Your task to perform on an android device: open app "Move to iOS" (install if not already installed), go to login, and select forgot password Image 0: 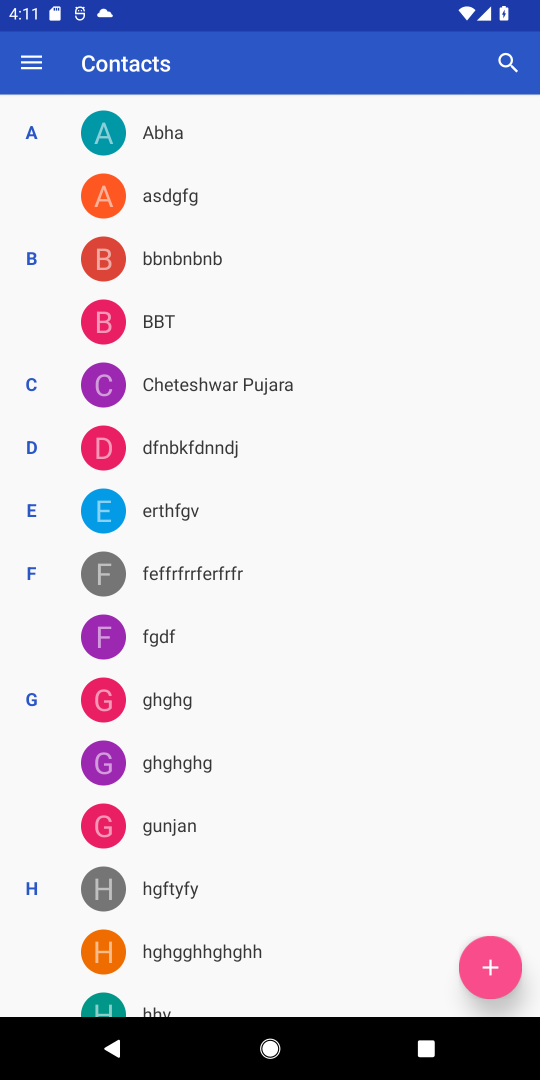
Step 0: press home button
Your task to perform on an android device: open app "Move to iOS" (install if not already installed), go to login, and select forgot password Image 1: 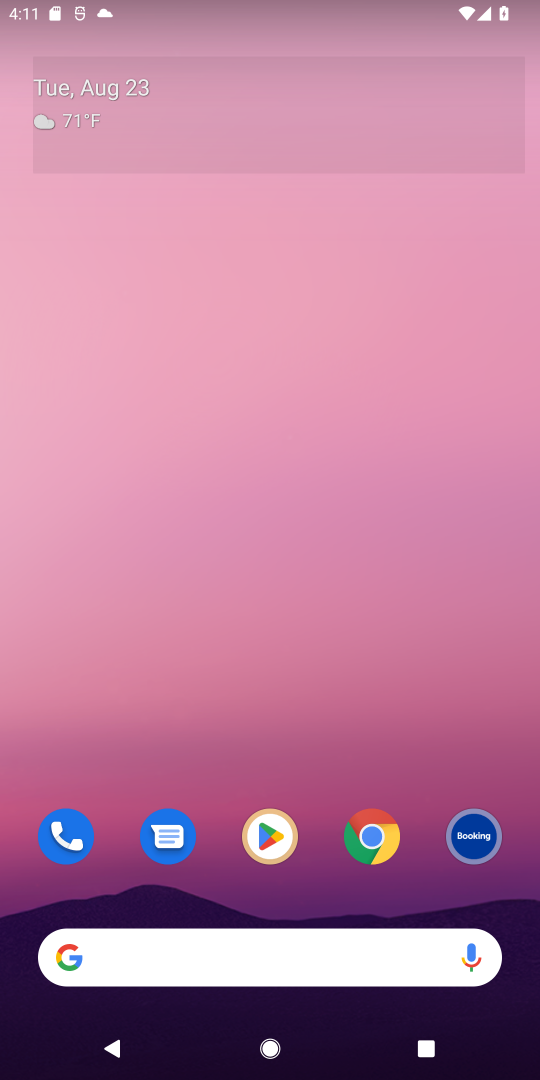
Step 1: click (274, 835)
Your task to perform on an android device: open app "Move to iOS" (install if not already installed), go to login, and select forgot password Image 2: 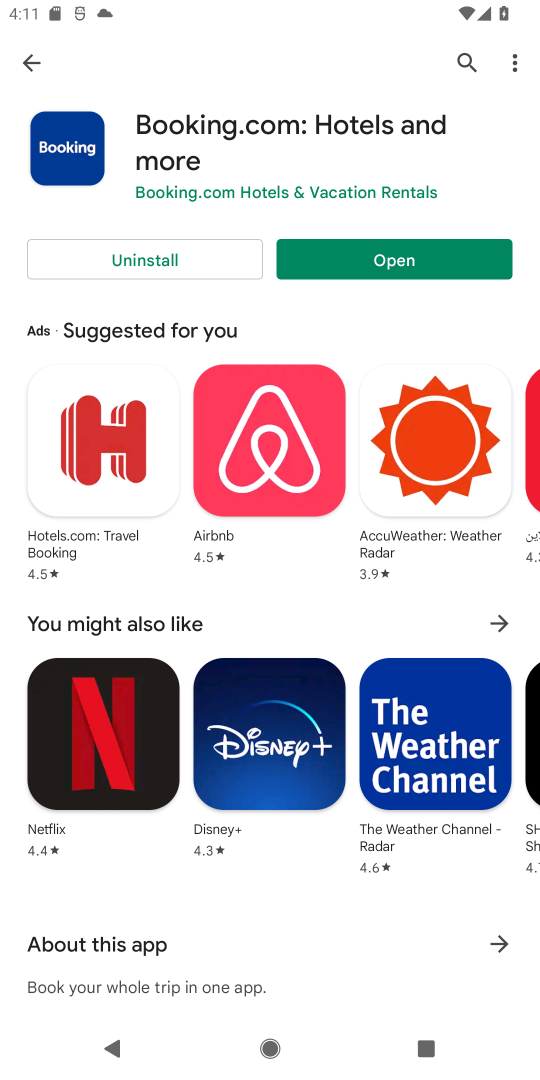
Step 2: click (466, 56)
Your task to perform on an android device: open app "Move to iOS" (install if not already installed), go to login, and select forgot password Image 3: 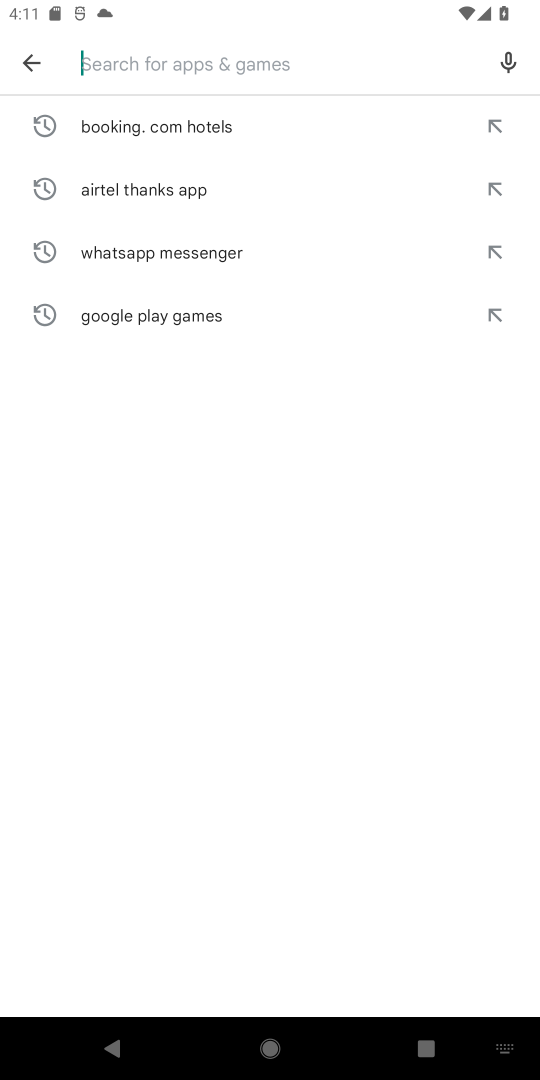
Step 3: type "Move to iOS"
Your task to perform on an android device: open app "Move to iOS" (install if not already installed), go to login, and select forgot password Image 4: 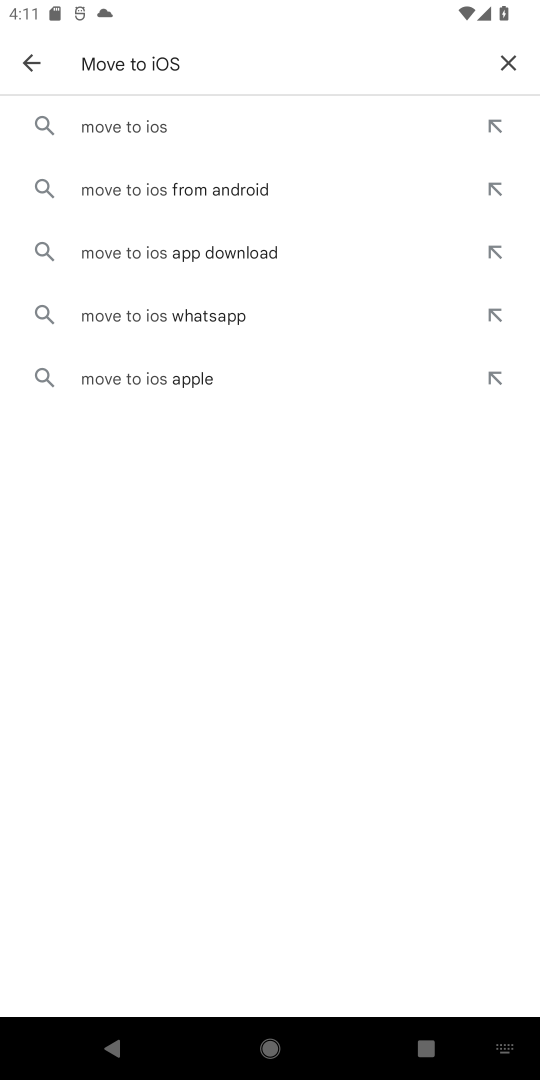
Step 4: click (146, 123)
Your task to perform on an android device: open app "Move to iOS" (install if not already installed), go to login, and select forgot password Image 5: 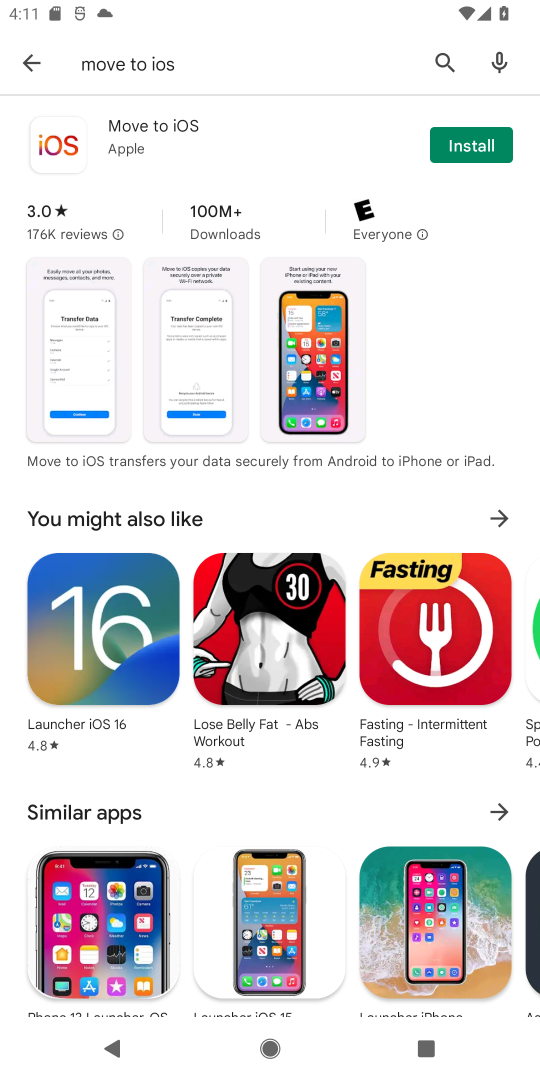
Step 5: click (472, 139)
Your task to perform on an android device: open app "Move to iOS" (install if not already installed), go to login, and select forgot password Image 6: 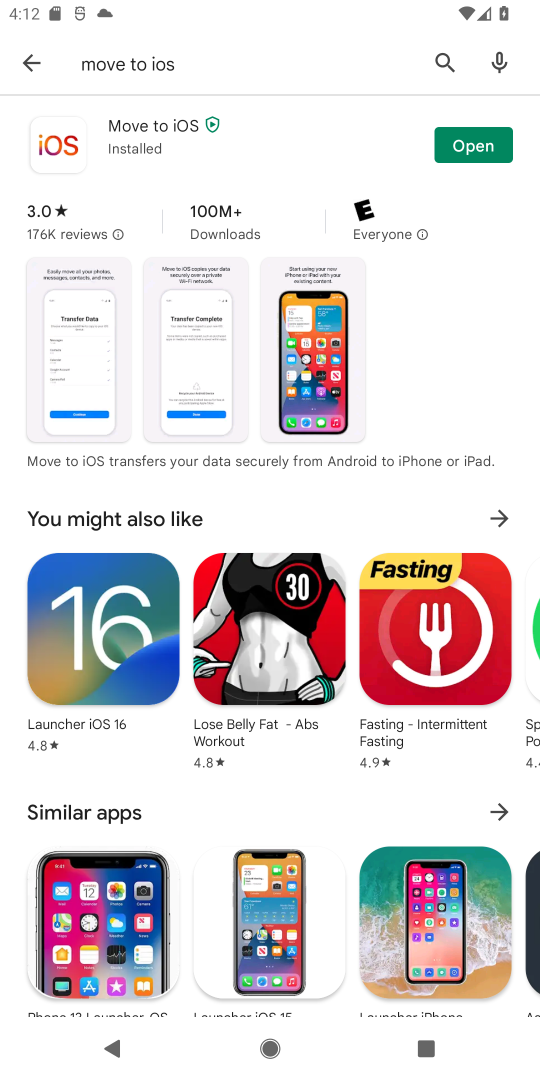
Step 6: click (477, 148)
Your task to perform on an android device: open app "Move to iOS" (install if not already installed), go to login, and select forgot password Image 7: 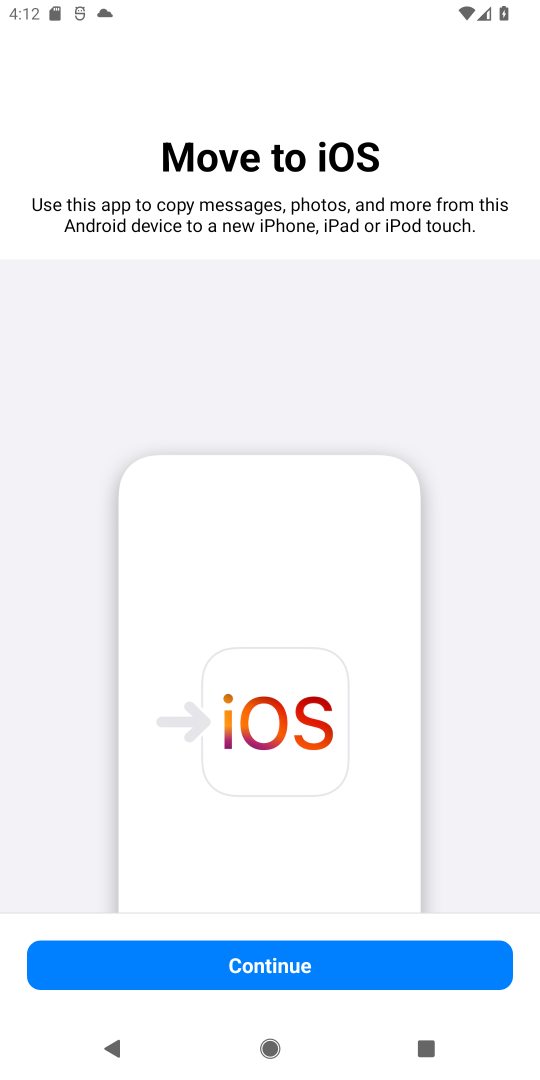
Step 7: click (264, 965)
Your task to perform on an android device: open app "Move to iOS" (install if not already installed), go to login, and select forgot password Image 8: 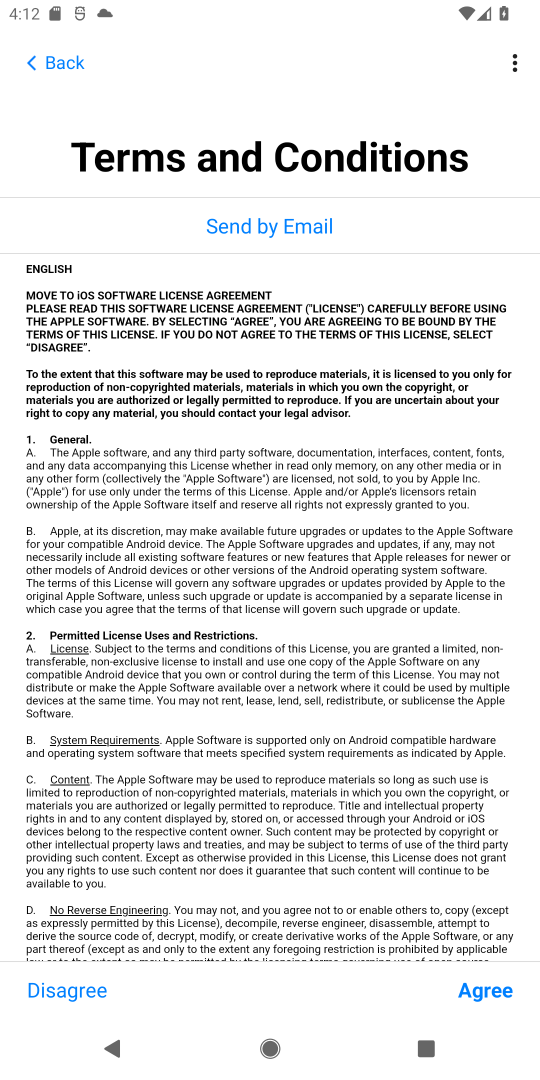
Step 8: click (483, 983)
Your task to perform on an android device: open app "Move to iOS" (install if not already installed), go to login, and select forgot password Image 9: 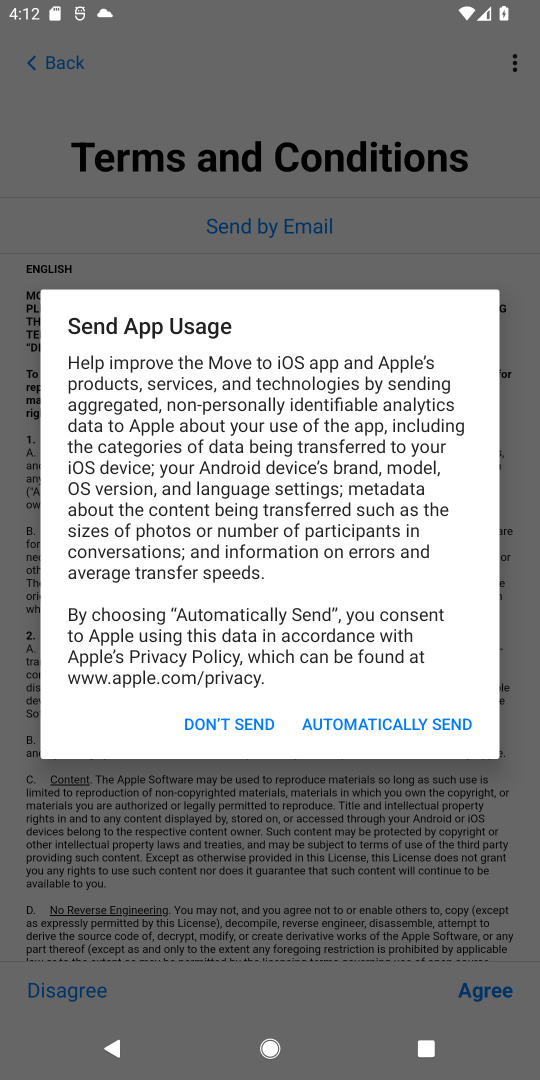
Step 9: click (225, 722)
Your task to perform on an android device: open app "Move to iOS" (install if not already installed), go to login, and select forgot password Image 10: 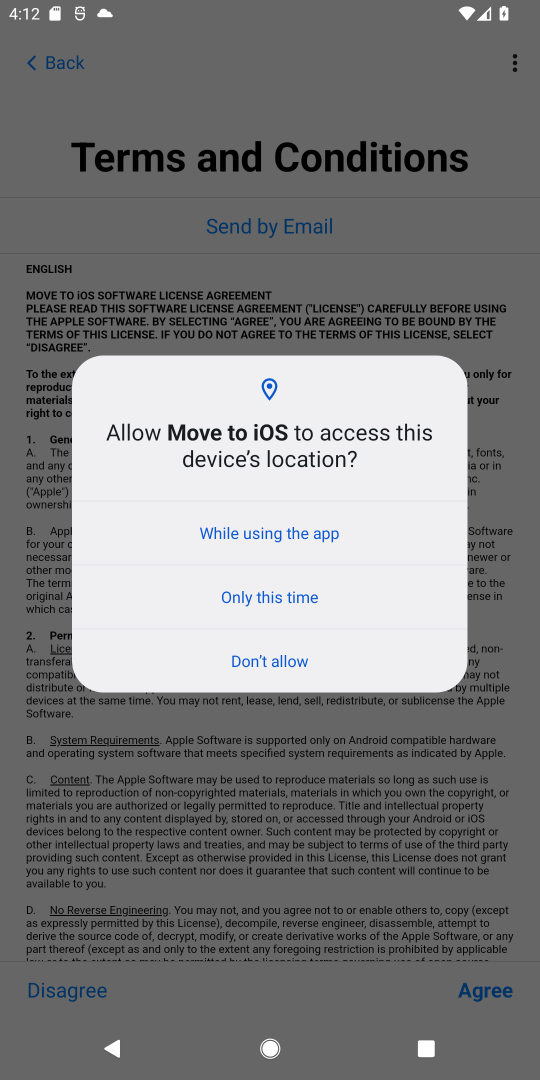
Step 10: click (260, 530)
Your task to perform on an android device: open app "Move to iOS" (install if not already installed), go to login, and select forgot password Image 11: 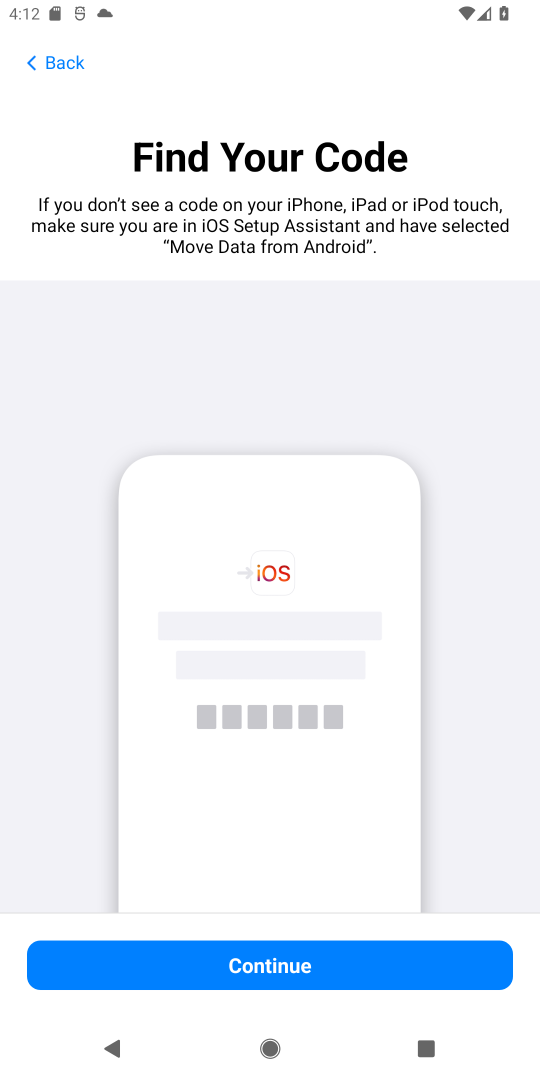
Step 11: click (275, 969)
Your task to perform on an android device: open app "Move to iOS" (install if not already installed), go to login, and select forgot password Image 12: 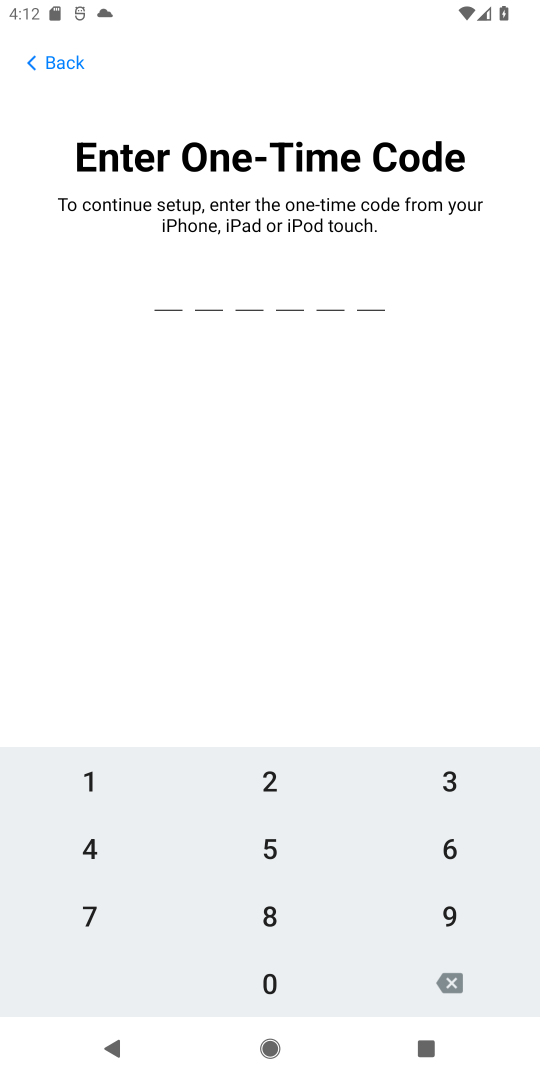
Step 12: task complete